Your task to perform on an android device: clear history in the chrome app Image 0: 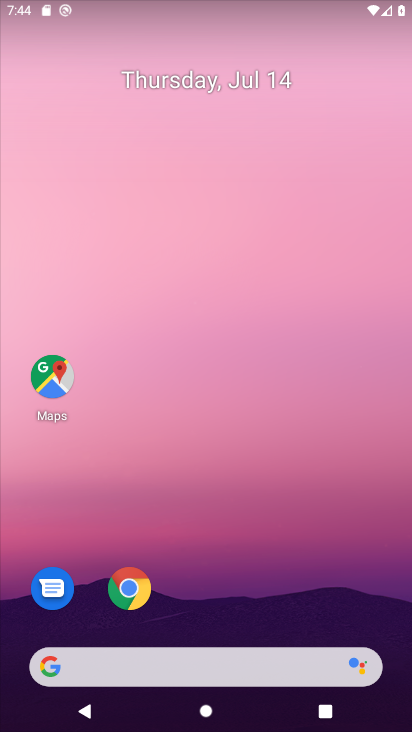
Step 0: drag from (325, 591) to (347, 153)
Your task to perform on an android device: clear history in the chrome app Image 1: 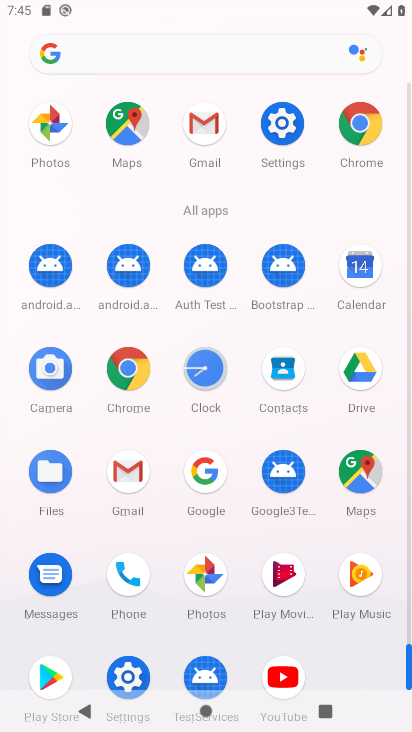
Step 1: click (138, 369)
Your task to perform on an android device: clear history in the chrome app Image 2: 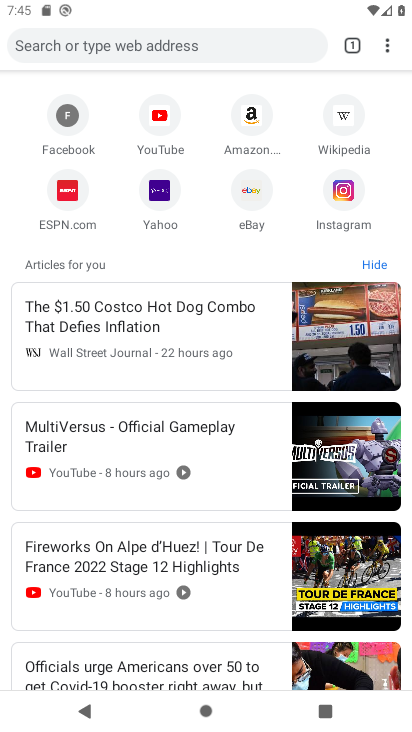
Step 2: click (387, 53)
Your task to perform on an android device: clear history in the chrome app Image 3: 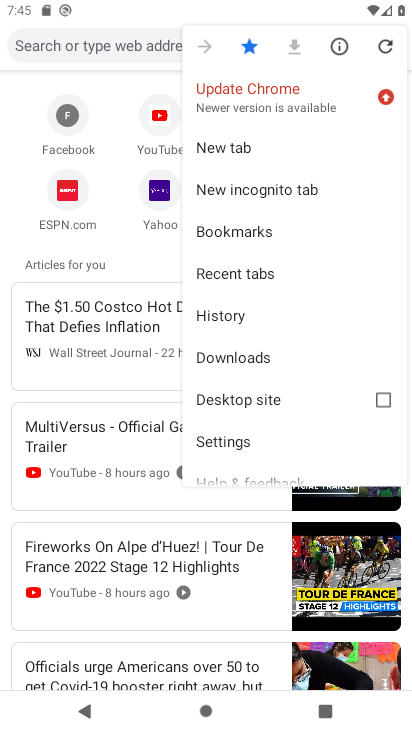
Step 3: click (231, 320)
Your task to perform on an android device: clear history in the chrome app Image 4: 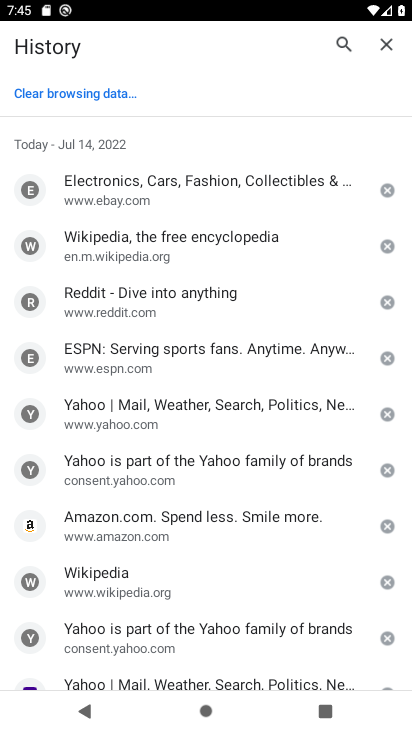
Step 4: click (101, 98)
Your task to perform on an android device: clear history in the chrome app Image 5: 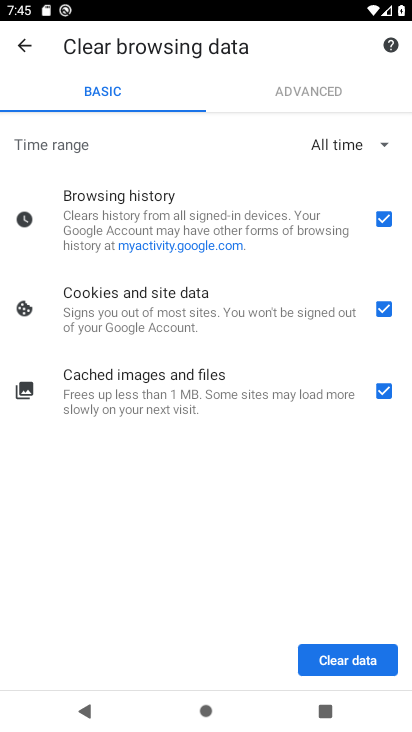
Step 5: click (332, 664)
Your task to perform on an android device: clear history in the chrome app Image 6: 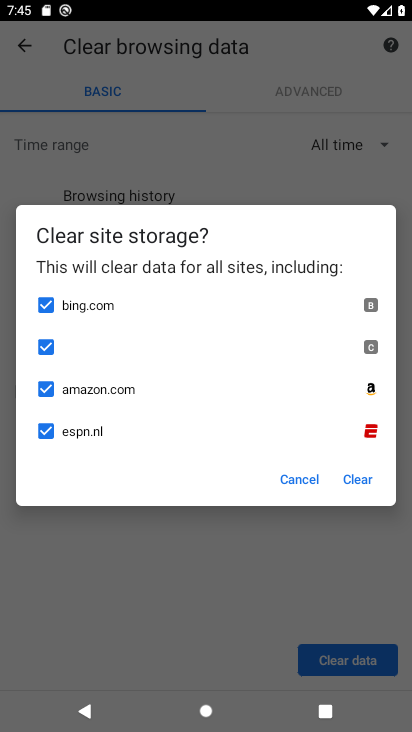
Step 6: click (355, 482)
Your task to perform on an android device: clear history in the chrome app Image 7: 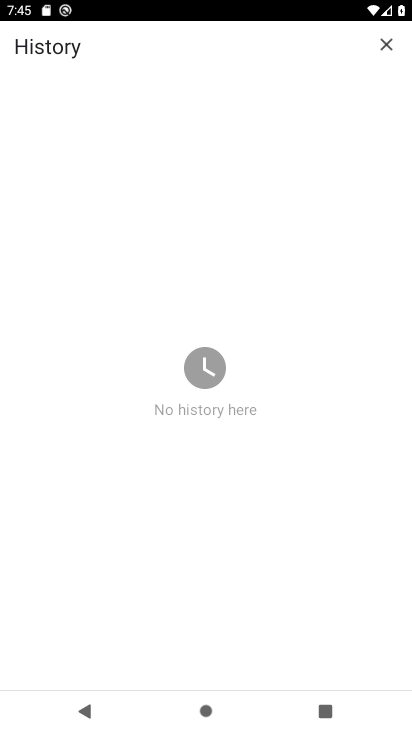
Step 7: task complete